Your task to perform on an android device: Go to accessibility settings Image 0: 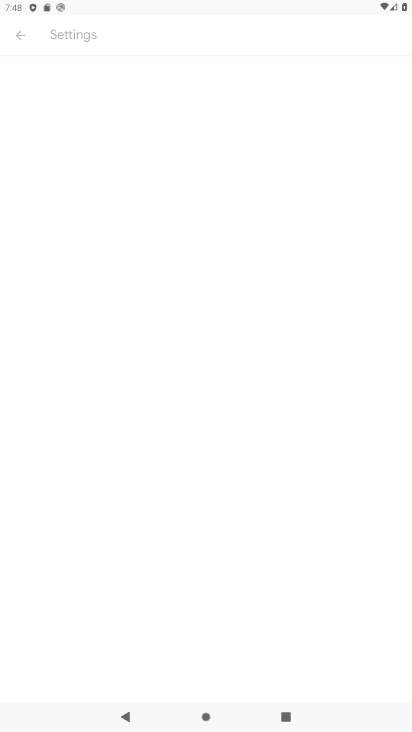
Step 0: drag from (209, 609) to (291, 273)
Your task to perform on an android device: Go to accessibility settings Image 1: 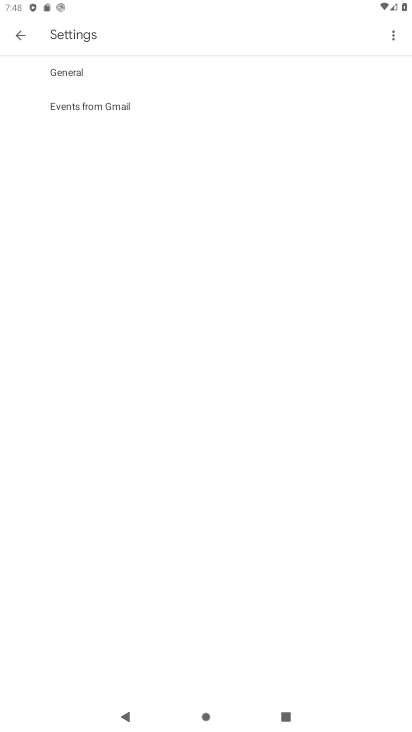
Step 1: press home button
Your task to perform on an android device: Go to accessibility settings Image 2: 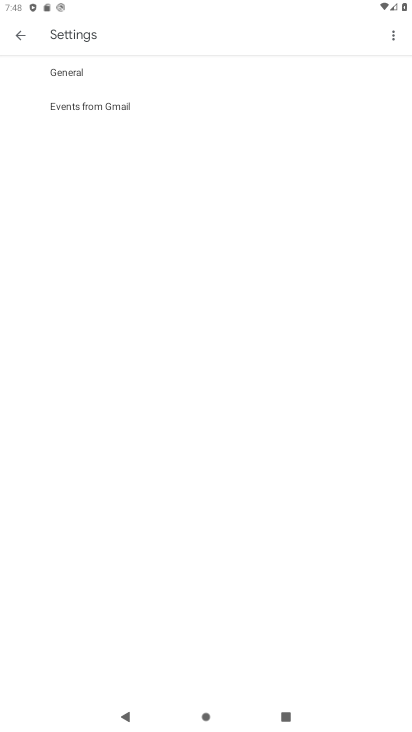
Step 2: press home button
Your task to perform on an android device: Go to accessibility settings Image 3: 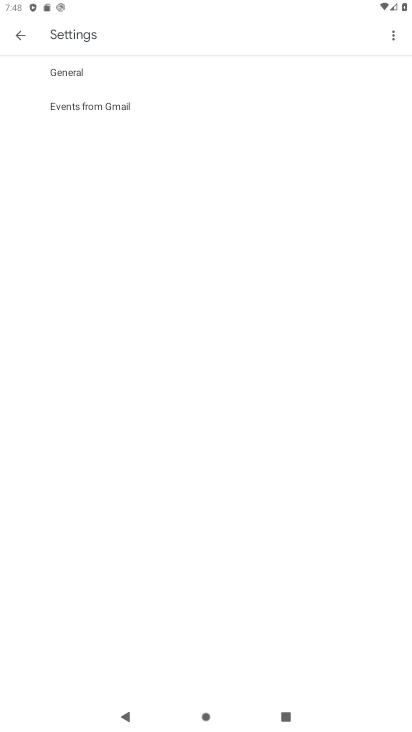
Step 3: drag from (174, 582) to (211, 380)
Your task to perform on an android device: Go to accessibility settings Image 4: 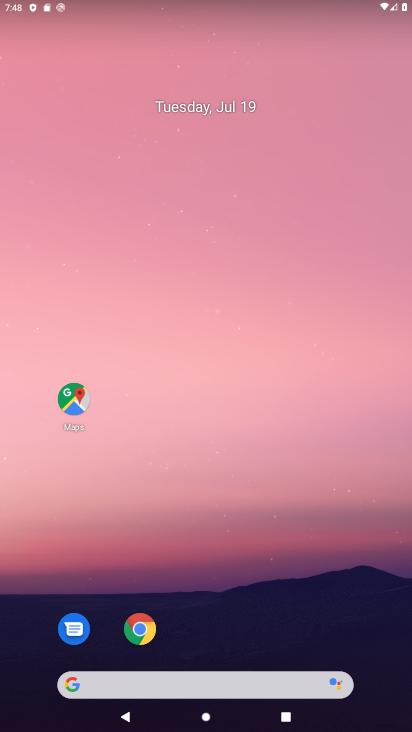
Step 4: drag from (204, 637) to (313, 165)
Your task to perform on an android device: Go to accessibility settings Image 5: 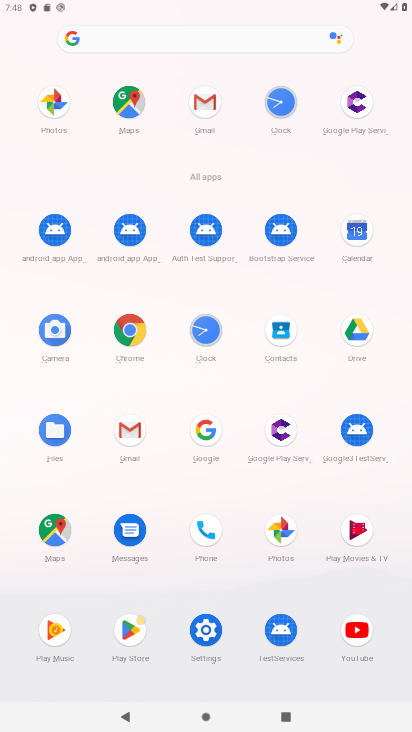
Step 5: click (211, 635)
Your task to perform on an android device: Go to accessibility settings Image 6: 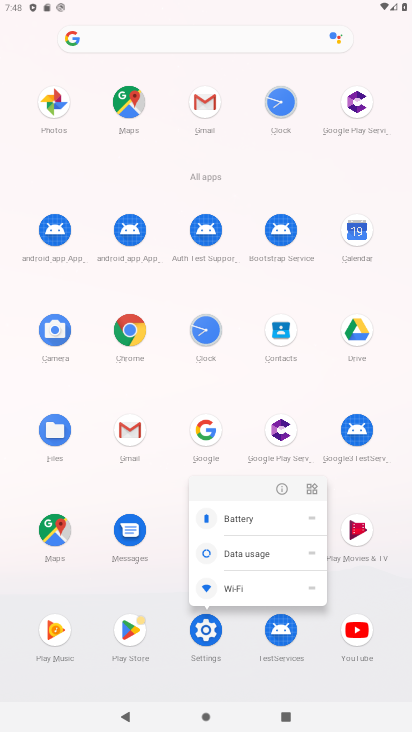
Step 6: click (273, 483)
Your task to perform on an android device: Go to accessibility settings Image 7: 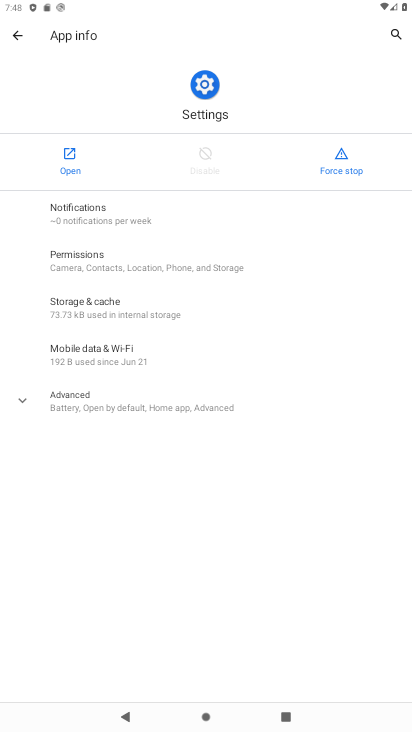
Step 7: click (74, 167)
Your task to perform on an android device: Go to accessibility settings Image 8: 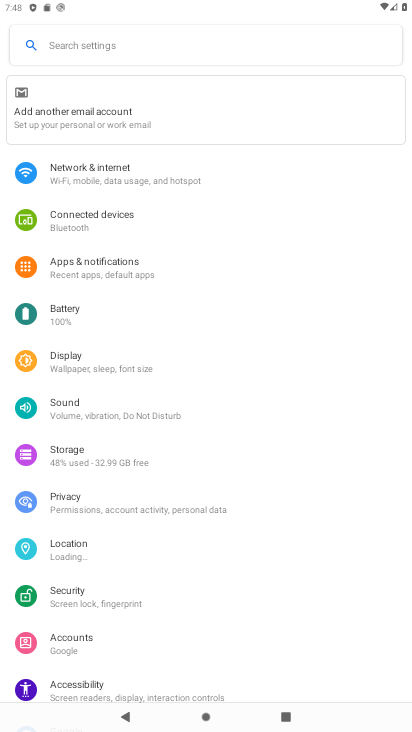
Step 8: drag from (137, 602) to (328, 7)
Your task to perform on an android device: Go to accessibility settings Image 9: 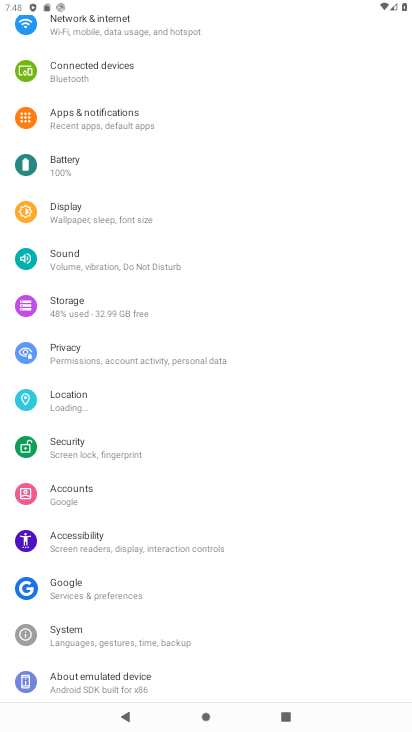
Step 9: click (71, 539)
Your task to perform on an android device: Go to accessibility settings Image 10: 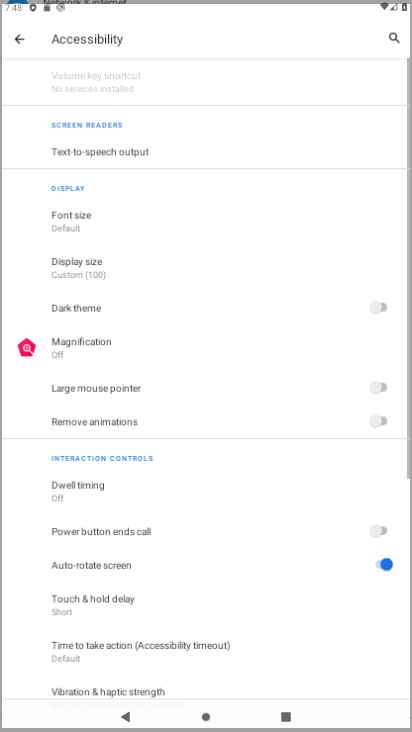
Step 10: task complete